Your task to perform on an android device: Show the shopping cart on costco. Search for "bose soundsport free" on costco, select the first entry, add it to the cart, then select checkout. Image 0: 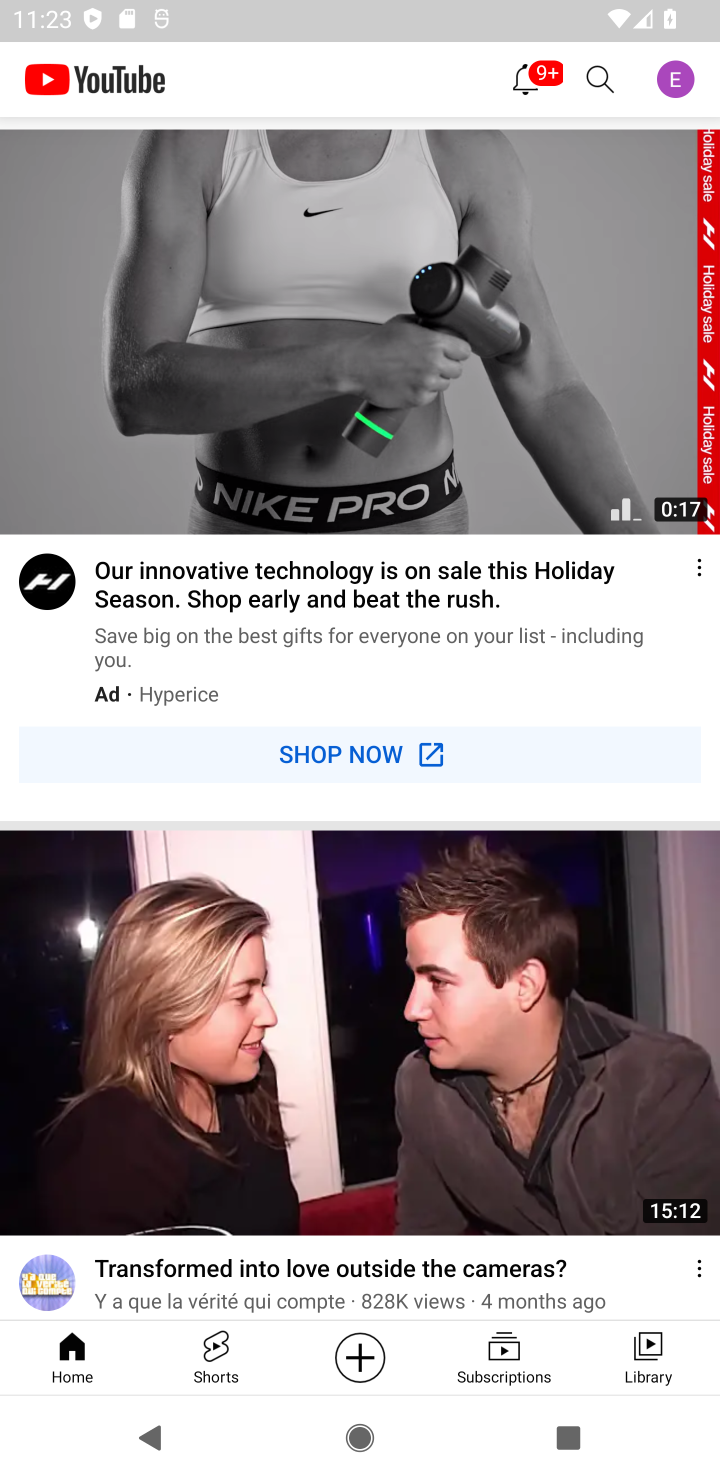
Step 0: press home button
Your task to perform on an android device: Show the shopping cart on costco. Search for "bose soundsport free" on costco, select the first entry, add it to the cart, then select checkout. Image 1: 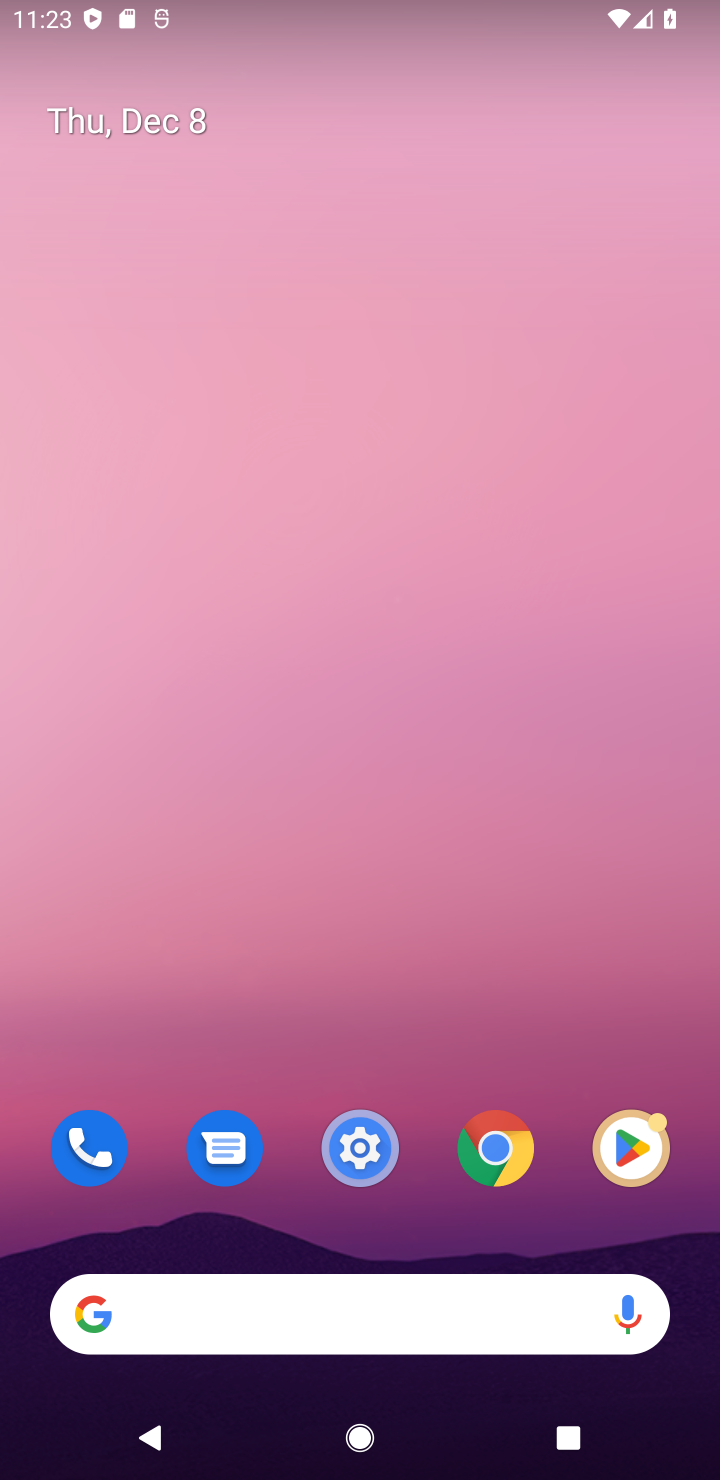
Step 1: click (240, 1320)
Your task to perform on an android device: Show the shopping cart on costco. Search for "bose soundsport free" on costco, select the first entry, add it to the cart, then select checkout. Image 2: 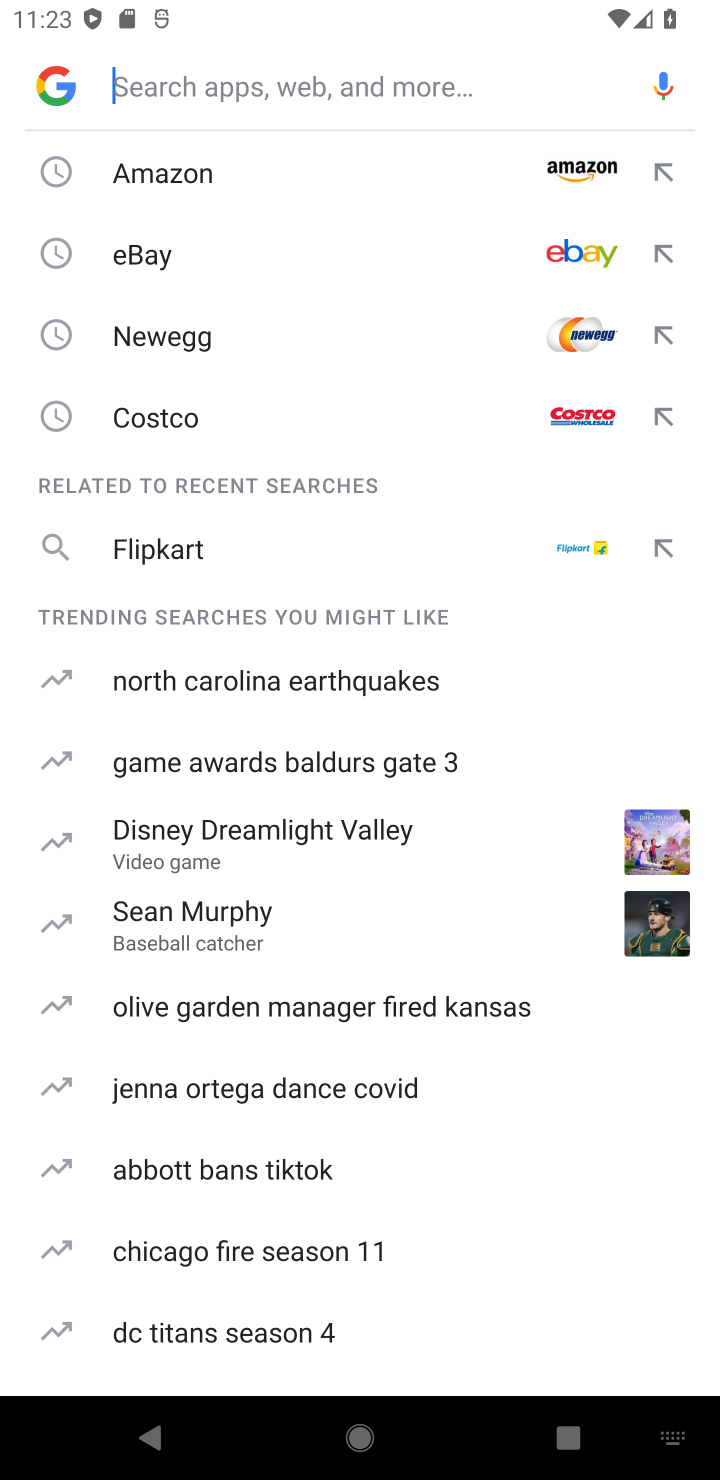
Step 2: click (160, 405)
Your task to perform on an android device: Show the shopping cart on costco. Search for "bose soundsport free" on costco, select the first entry, add it to the cart, then select checkout. Image 3: 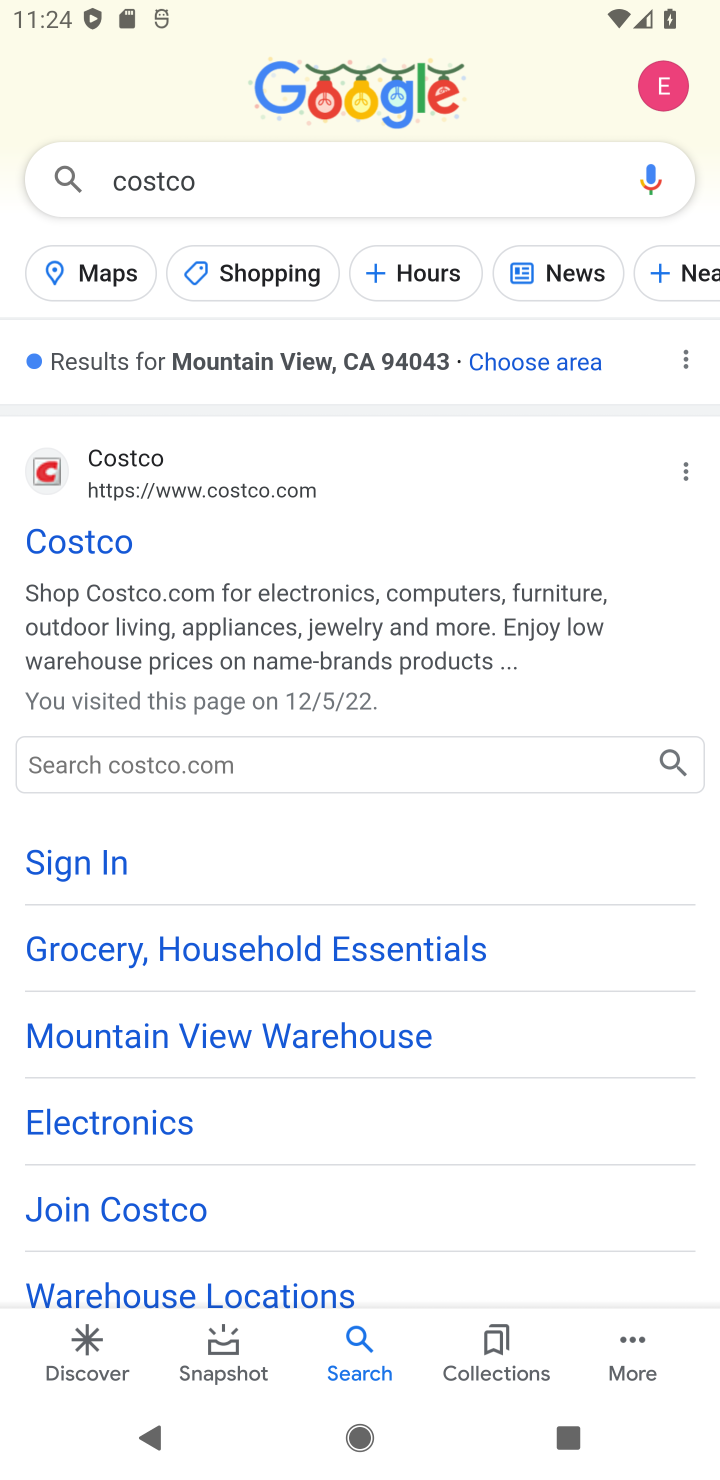
Step 3: click (100, 542)
Your task to perform on an android device: Show the shopping cart on costco. Search for "bose soundsport free" on costco, select the first entry, add it to the cart, then select checkout. Image 4: 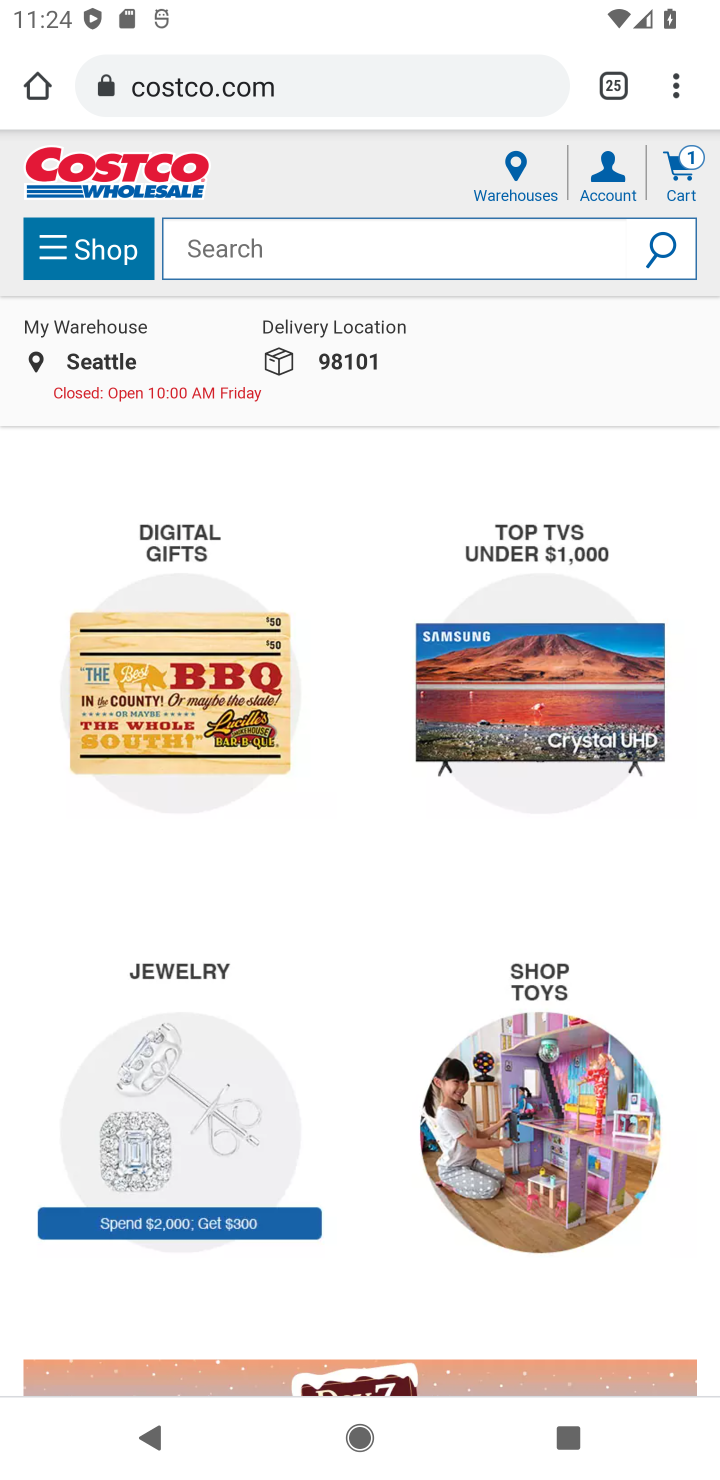
Step 4: click (228, 241)
Your task to perform on an android device: Show the shopping cart on costco. Search for "bose soundsport free" on costco, select the first entry, add it to the cart, then select checkout. Image 5: 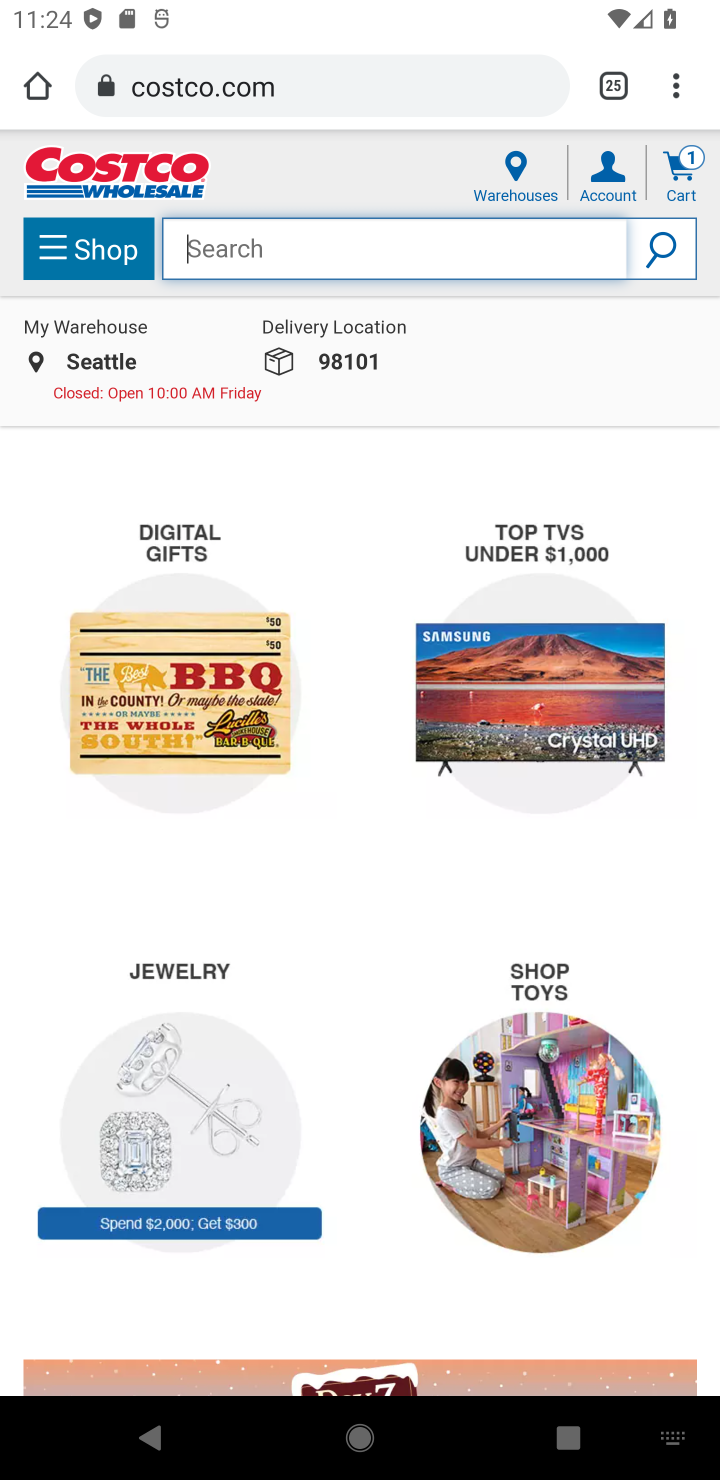
Step 5: type "bose soundsport free"
Your task to perform on an android device: Show the shopping cart on costco. Search for "bose soundsport free" on costco, select the first entry, add it to the cart, then select checkout. Image 6: 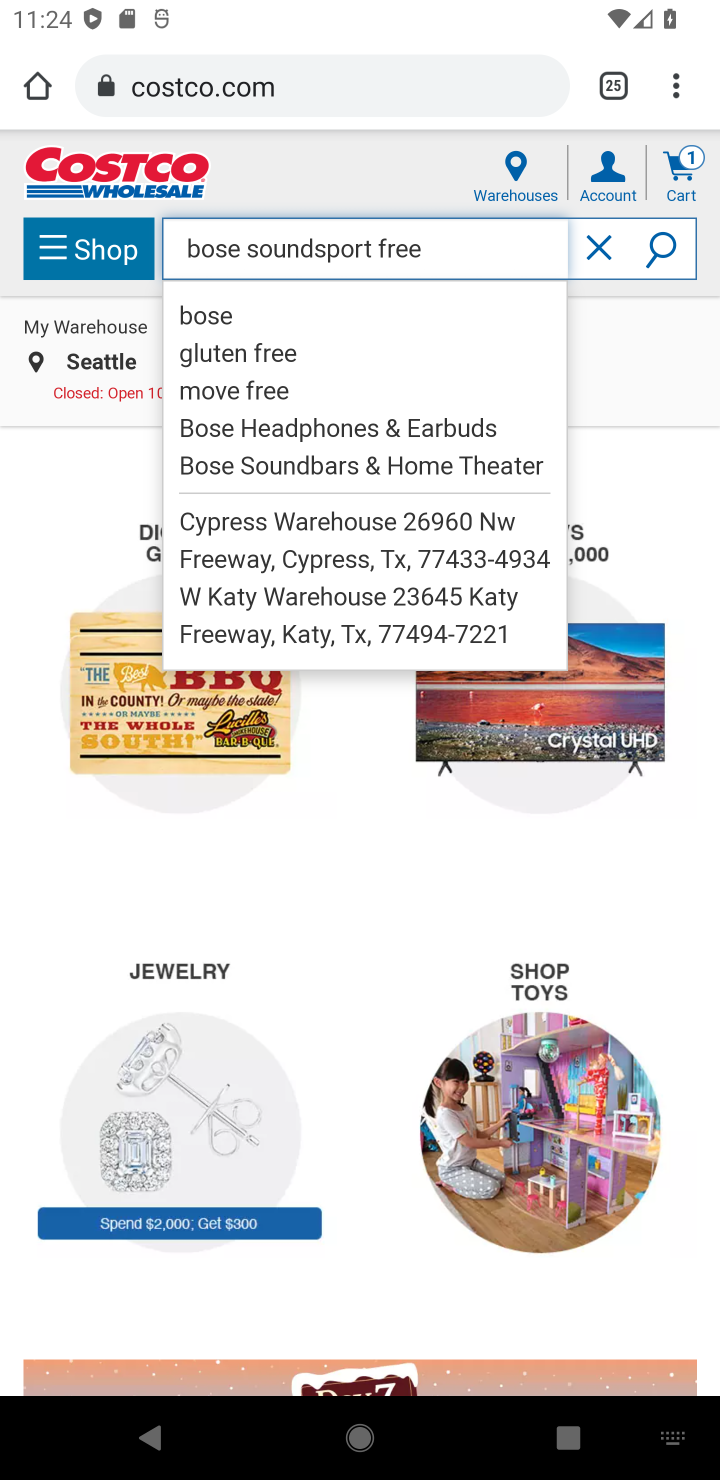
Step 6: click (663, 248)
Your task to perform on an android device: Show the shopping cart on costco. Search for "bose soundsport free" on costco, select the first entry, add it to the cart, then select checkout. Image 7: 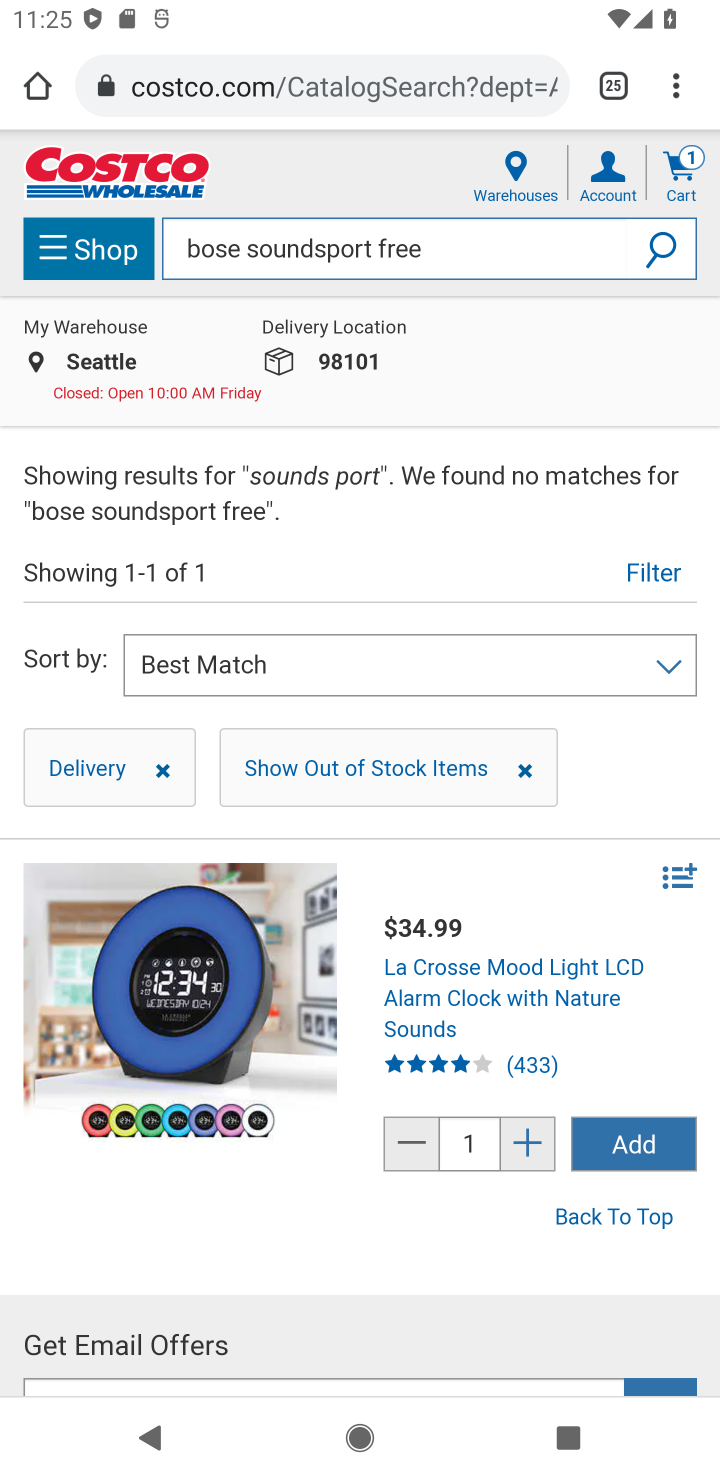
Step 7: type ""
Your task to perform on an android device: Show the shopping cart on costco. Search for "bose soundsport free" on costco, select the first entry, add it to the cart, then select checkout. Image 8: 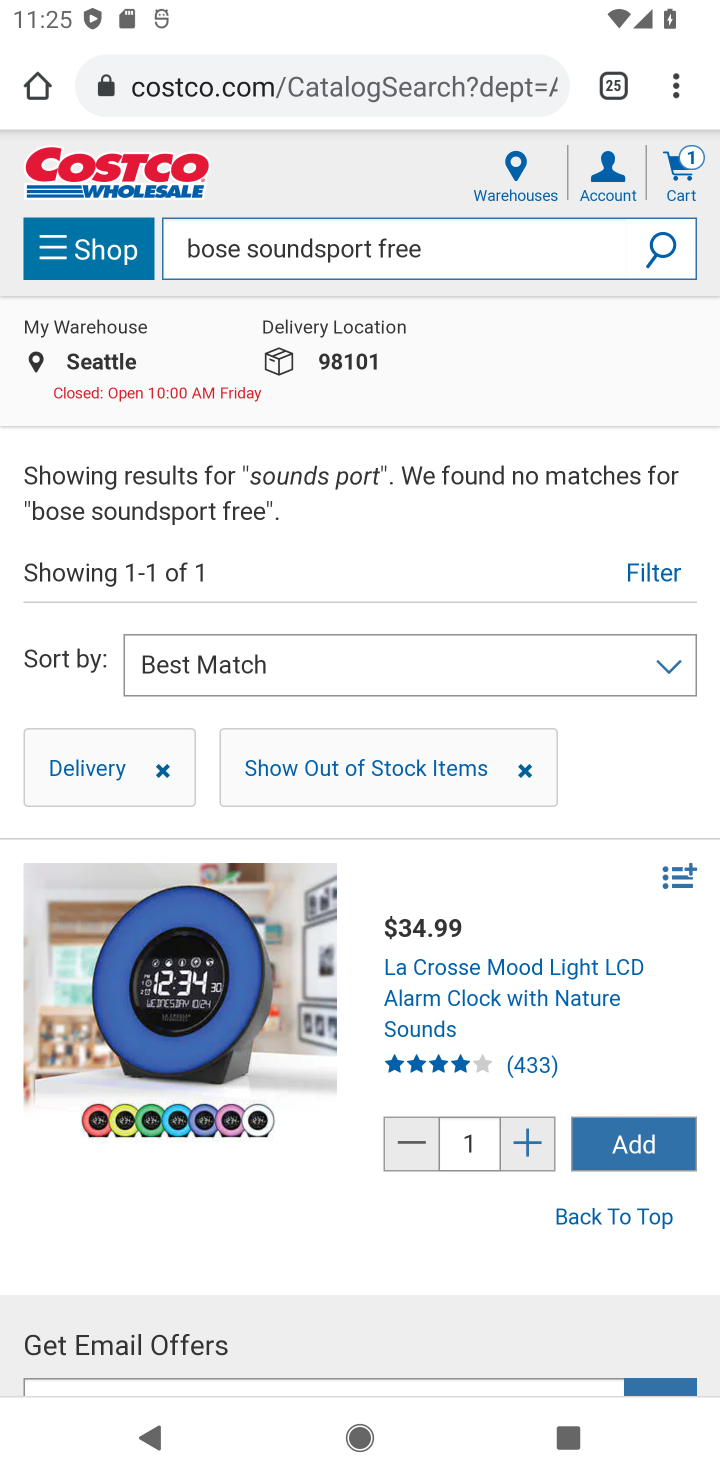
Step 8: click (615, 1147)
Your task to perform on an android device: Show the shopping cart on costco. Search for "bose soundsport free" on costco, select the first entry, add it to the cart, then select checkout. Image 9: 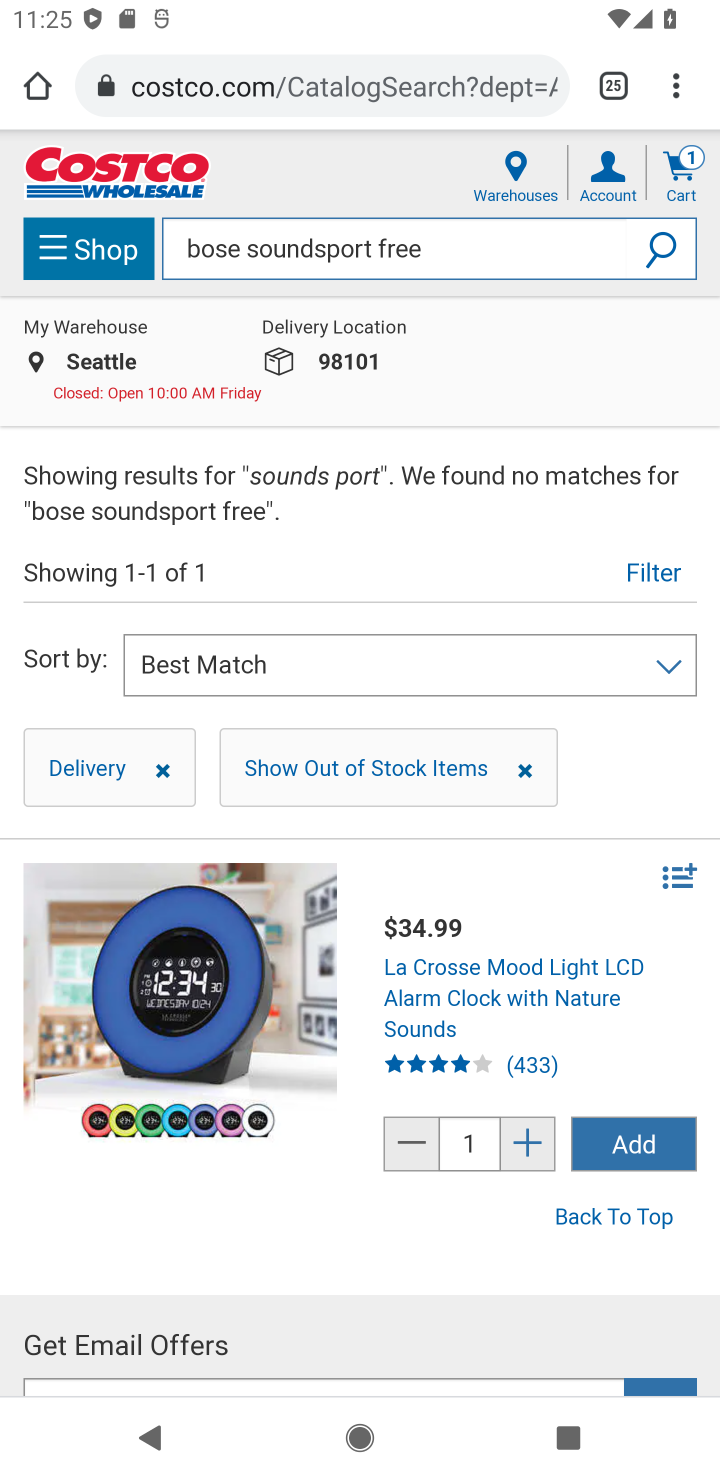
Step 9: click (671, 147)
Your task to perform on an android device: Show the shopping cart on costco. Search for "bose soundsport free" on costco, select the first entry, add it to the cart, then select checkout. Image 10: 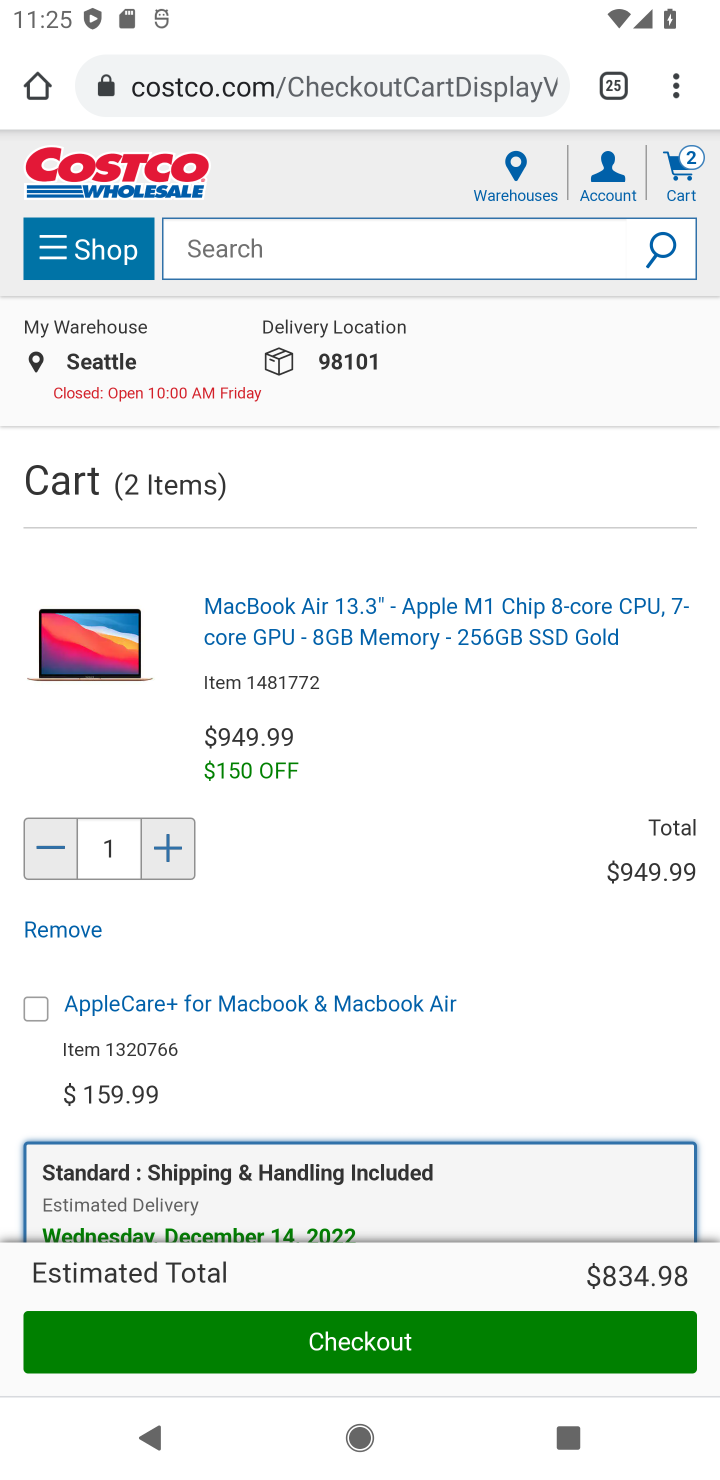
Step 10: click (300, 1349)
Your task to perform on an android device: Show the shopping cart on costco. Search for "bose soundsport free" on costco, select the first entry, add it to the cart, then select checkout. Image 11: 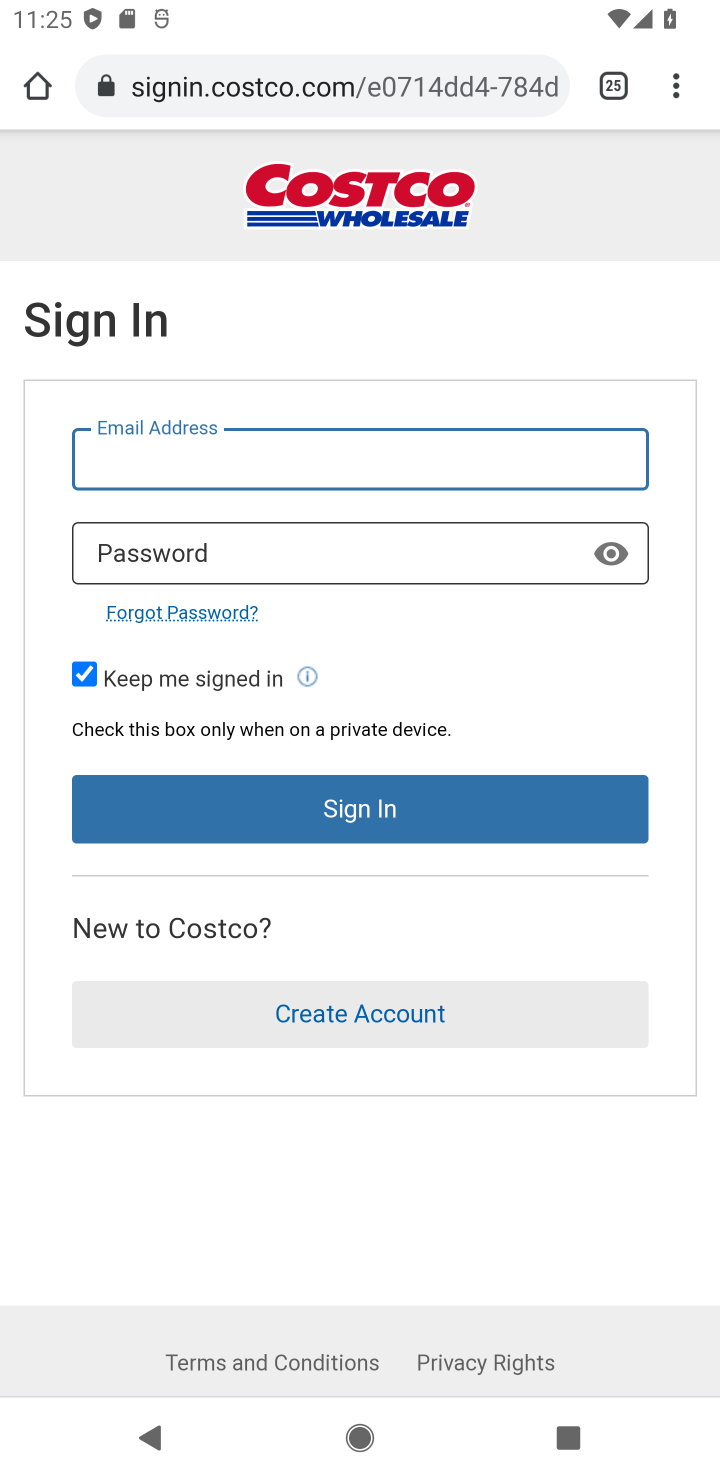
Step 11: task complete